Your task to perform on an android device: toggle pop-ups in chrome Image 0: 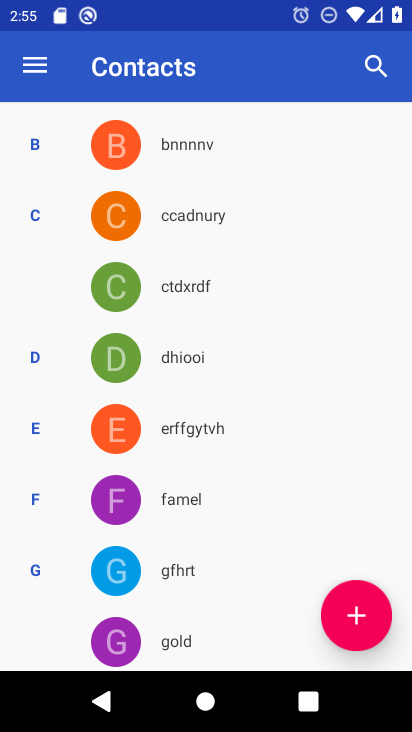
Step 0: press home button
Your task to perform on an android device: toggle pop-ups in chrome Image 1: 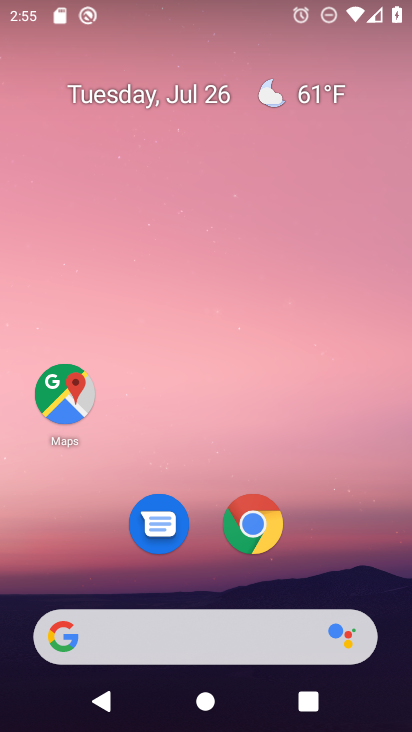
Step 1: click (261, 525)
Your task to perform on an android device: toggle pop-ups in chrome Image 2: 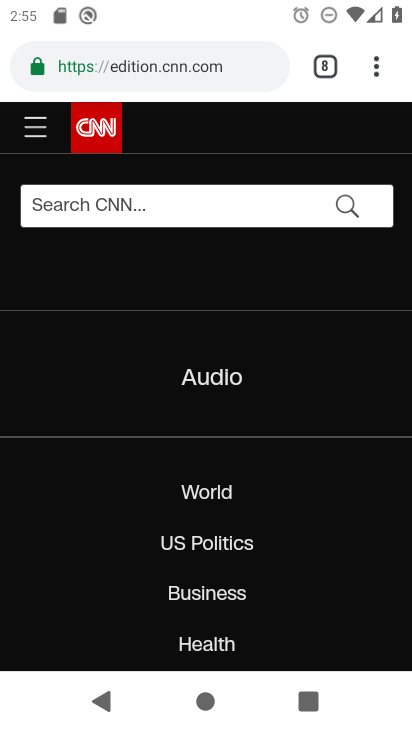
Step 2: drag from (375, 80) to (194, 519)
Your task to perform on an android device: toggle pop-ups in chrome Image 3: 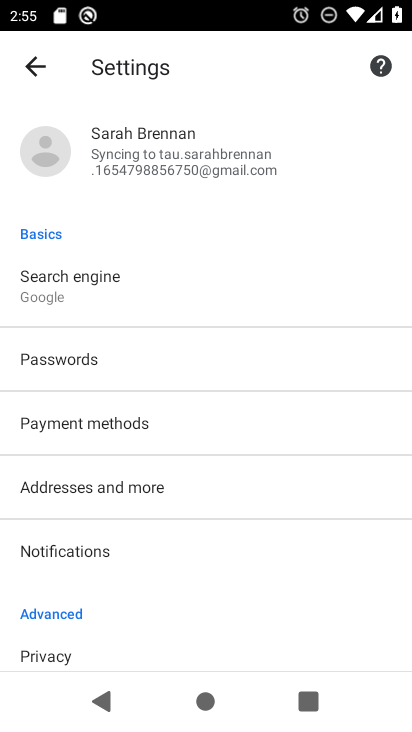
Step 3: drag from (149, 612) to (201, 198)
Your task to perform on an android device: toggle pop-ups in chrome Image 4: 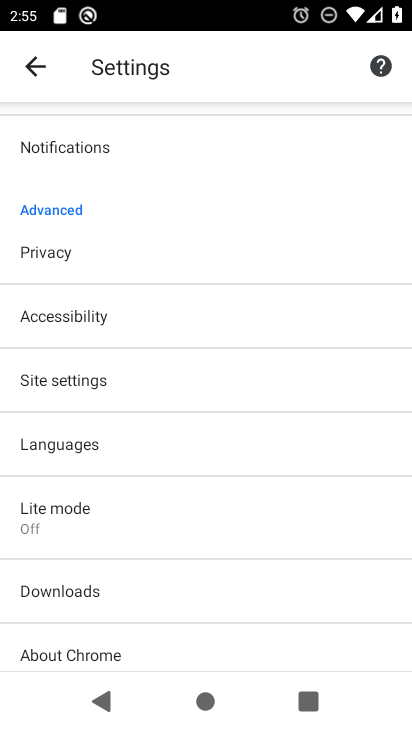
Step 4: click (74, 378)
Your task to perform on an android device: toggle pop-ups in chrome Image 5: 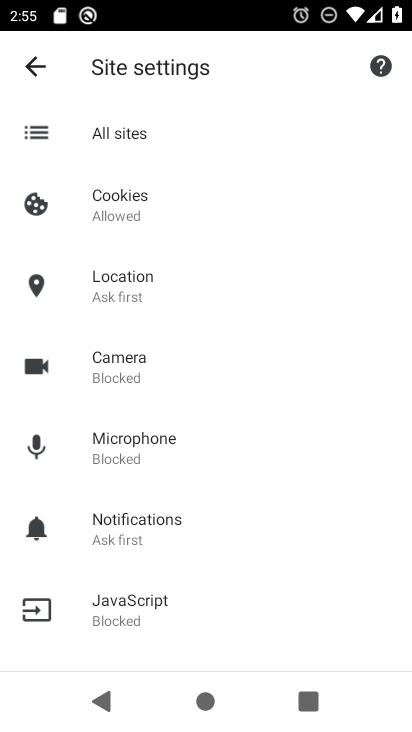
Step 5: drag from (226, 604) to (280, 216)
Your task to perform on an android device: toggle pop-ups in chrome Image 6: 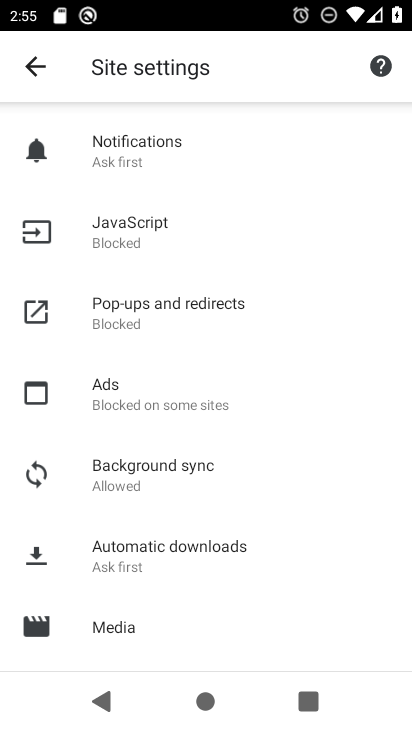
Step 6: click (155, 314)
Your task to perform on an android device: toggle pop-ups in chrome Image 7: 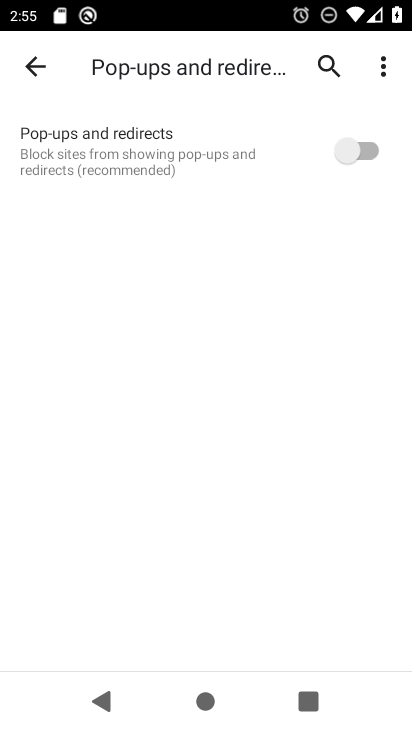
Step 7: click (370, 150)
Your task to perform on an android device: toggle pop-ups in chrome Image 8: 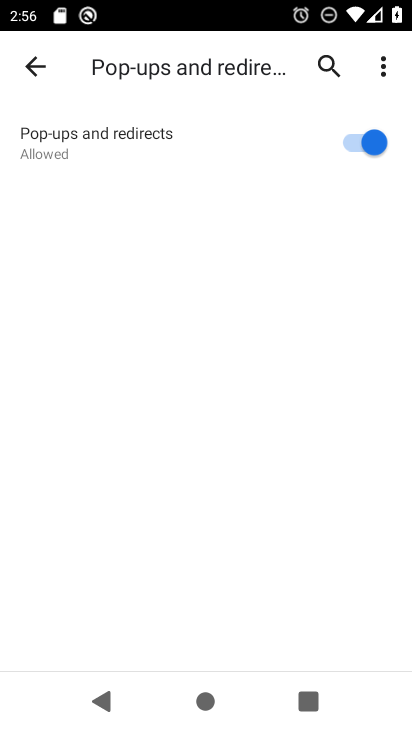
Step 8: task complete